Your task to perform on an android device: see sites visited before in the chrome app Image 0: 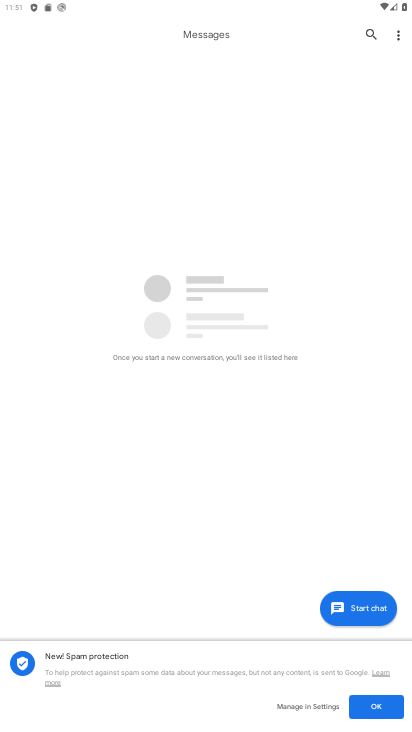
Step 0: press home button
Your task to perform on an android device: see sites visited before in the chrome app Image 1: 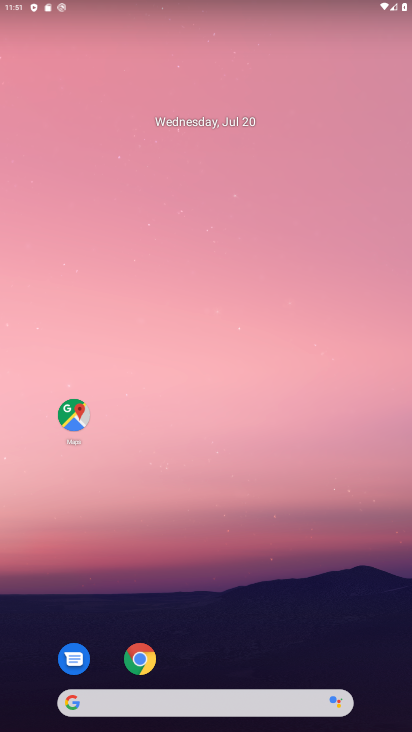
Step 1: drag from (323, 651) to (84, 102)
Your task to perform on an android device: see sites visited before in the chrome app Image 2: 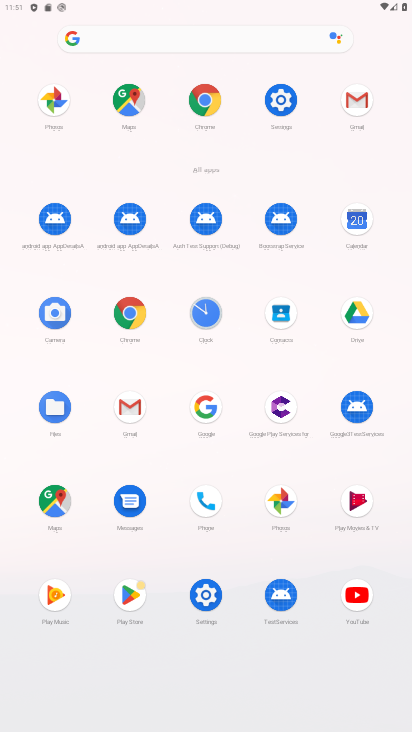
Step 2: click (122, 315)
Your task to perform on an android device: see sites visited before in the chrome app Image 3: 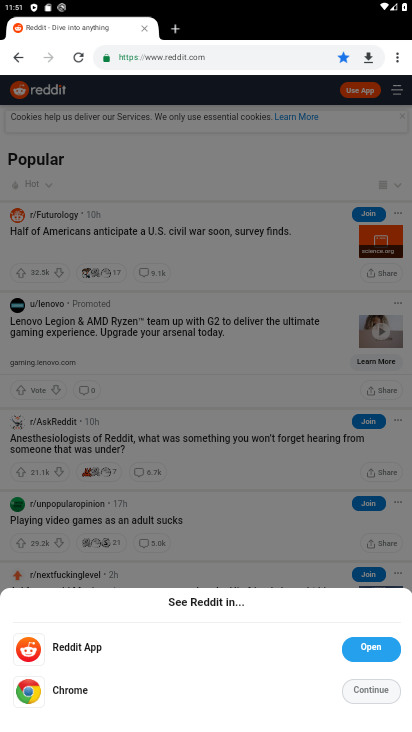
Step 3: task complete